Your task to perform on an android device: Go to Maps Image 0: 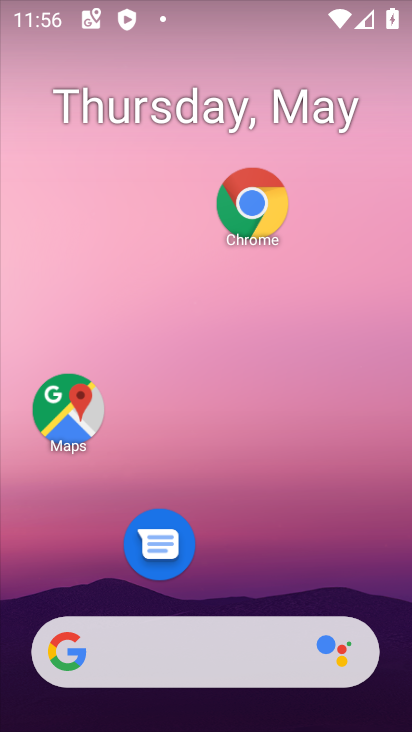
Step 0: drag from (235, 589) to (202, 269)
Your task to perform on an android device: Go to Maps Image 1: 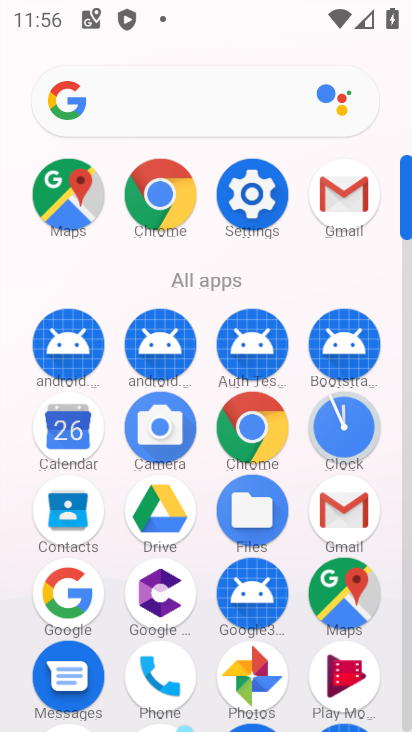
Step 1: click (73, 176)
Your task to perform on an android device: Go to Maps Image 2: 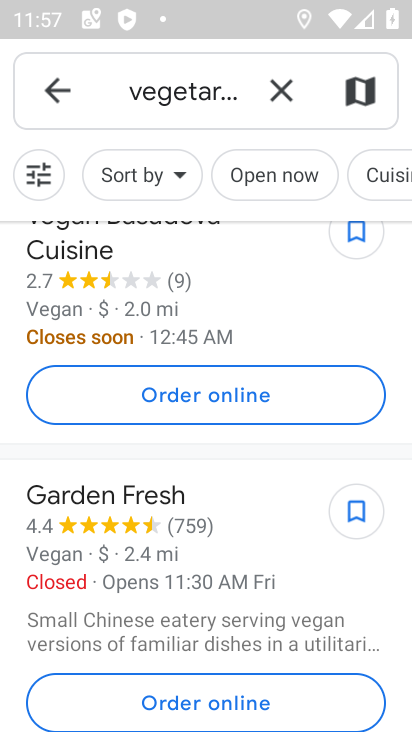
Step 2: task complete